Your task to perform on an android device: What's the weather? Image 0: 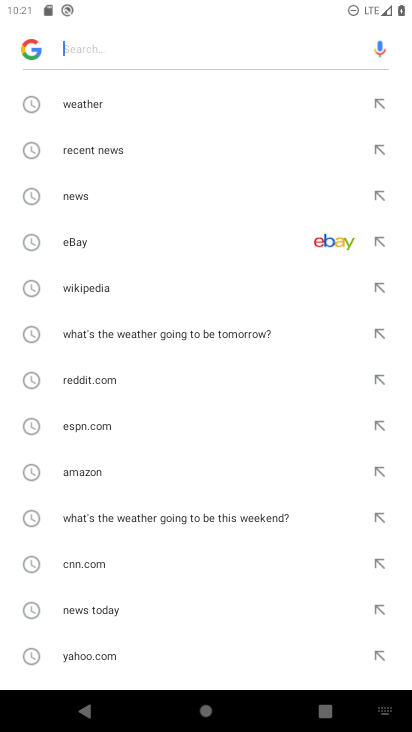
Step 0: click (66, 106)
Your task to perform on an android device: What's the weather? Image 1: 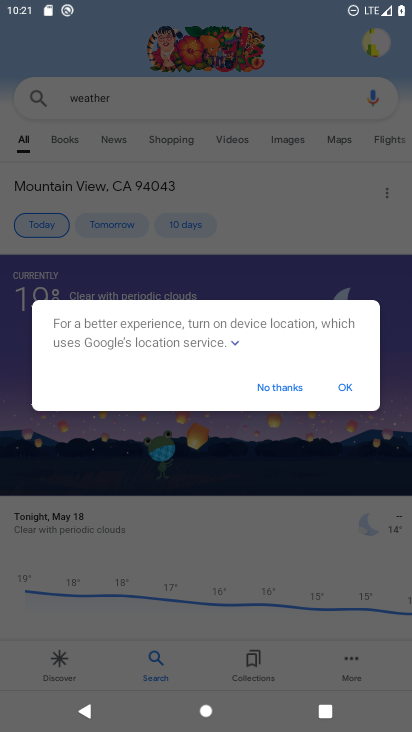
Step 1: click (267, 390)
Your task to perform on an android device: What's the weather? Image 2: 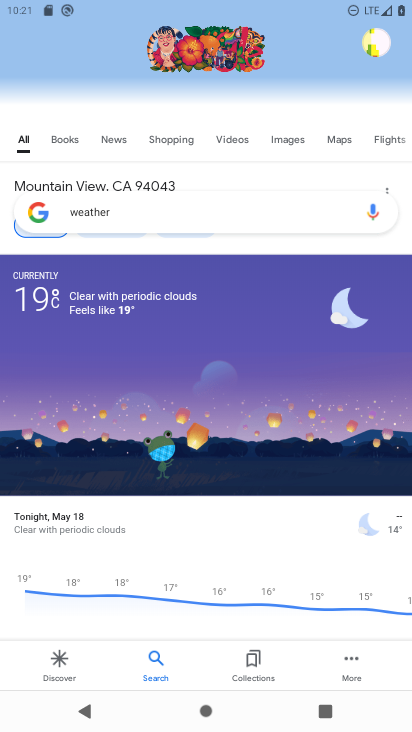
Step 2: task complete